Your task to perform on an android device: toggle pop-ups in chrome Image 0: 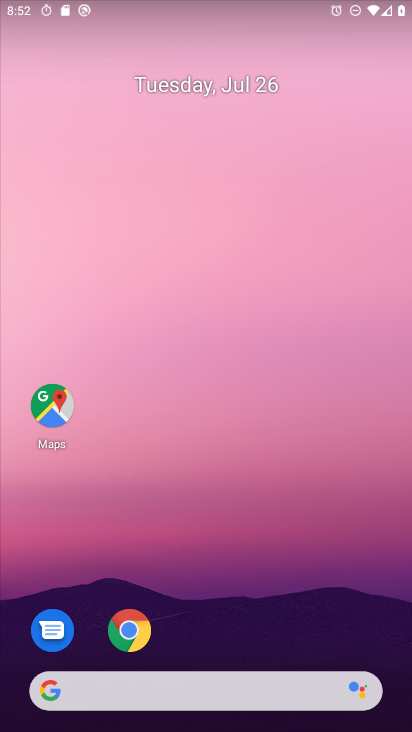
Step 0: drag from (269, 608) to (217, 170)
Your task to perform on an android device: toggle pop-ups in chrome Image 1: 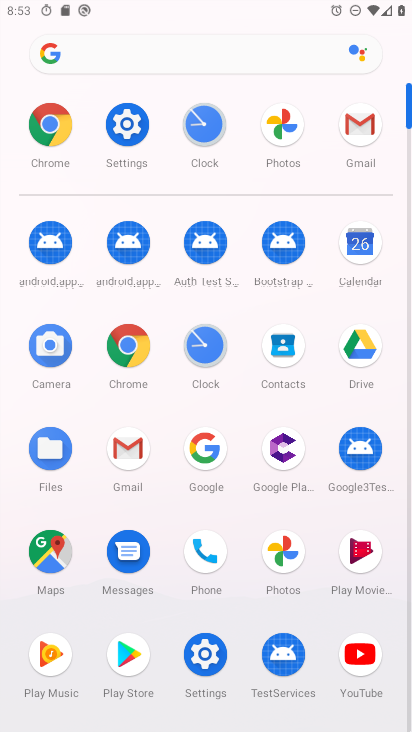
Step 1: click (136, 358)
Your task to perform on an android device: toggle pop-ups in chrome Image 2: 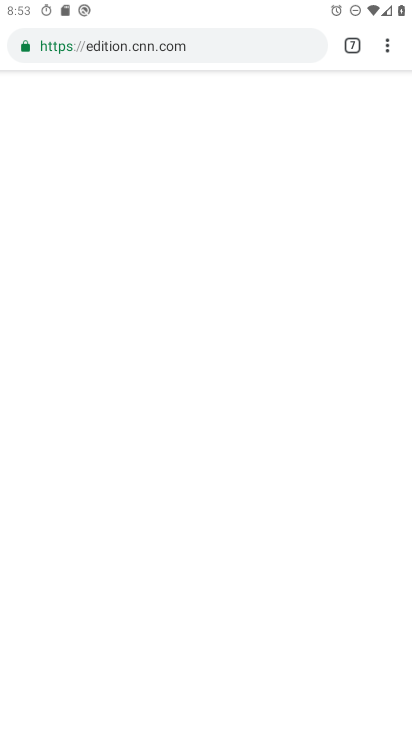
Step 2: click (388, 39)
Your task to perform on an android device: toggle pop-ups in chrome Image 3: 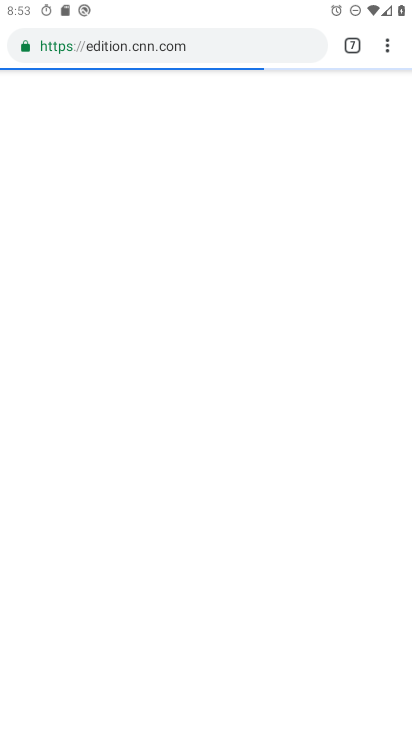
Step 3: click (387, 47)
Your task to perform on an android device: toggle pop-ups in chrome Image 4: 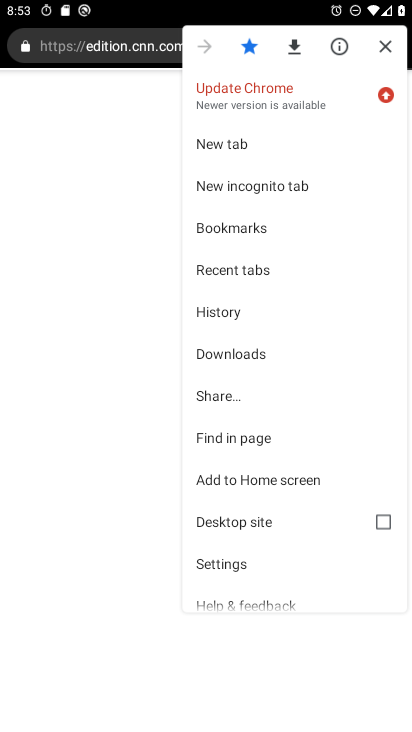
Step 4: click (249, 566)
Your task to perform on an android device: toggle pop-ups in chrome Image 5: 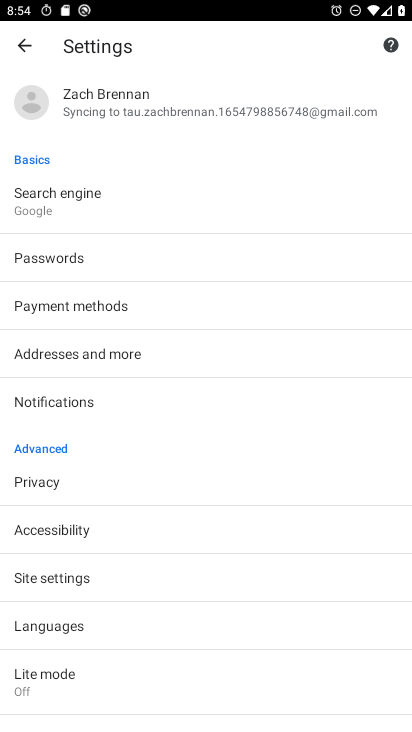
Step 5: click (105, 584)
Your task to perform on an android device: toggle pop-ups in chrome Image 6: 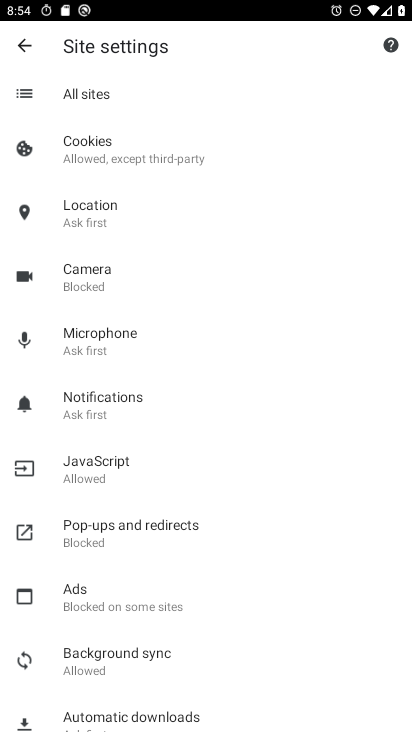
Step 6: click (193, 519)
Your task to perform on an android device: toggle pop-ups in chrome Image 7: 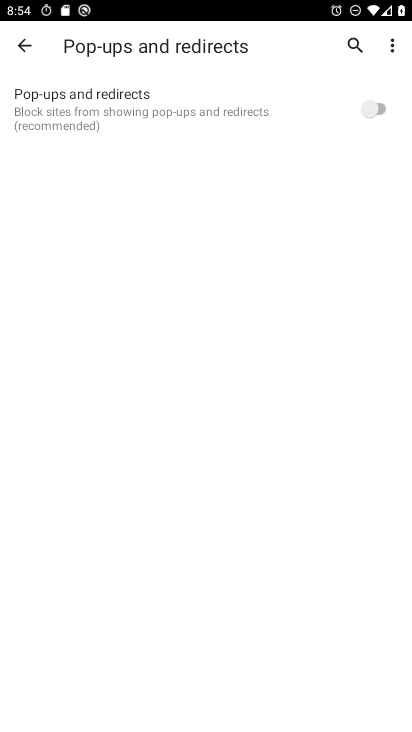
Step 7: click (385, 104)
Your task to perform on an android device: toggle pop-ups in chrome Image 8: 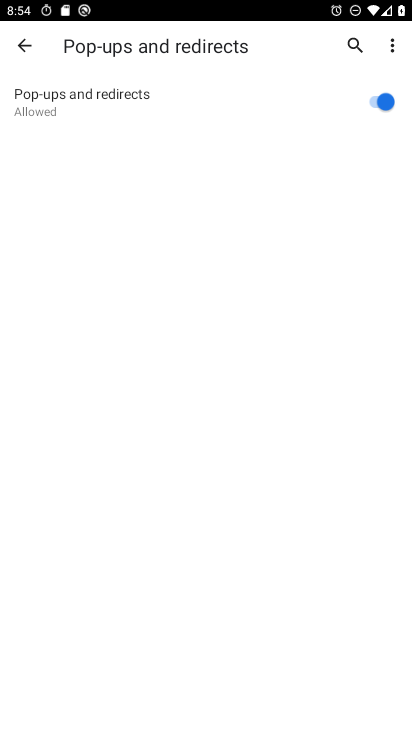
Step 8: click (384, 105)
Your task to perform on an android device: toggle pop-ups in chrome Image 9: 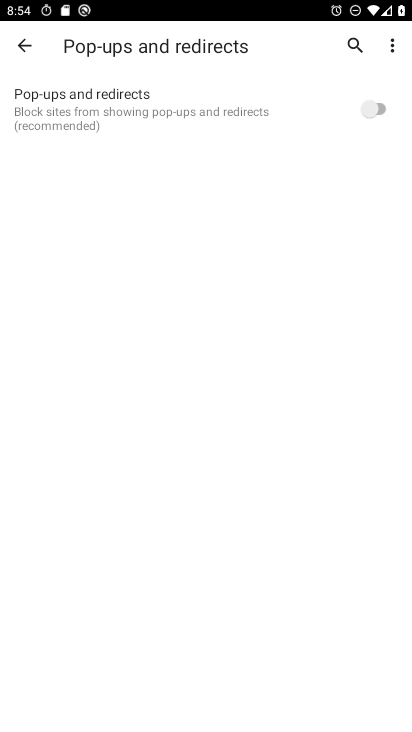
Step 9: click (389, 114)
Your task to perform on an android device: toggle pop-ups in chrome Image 10: 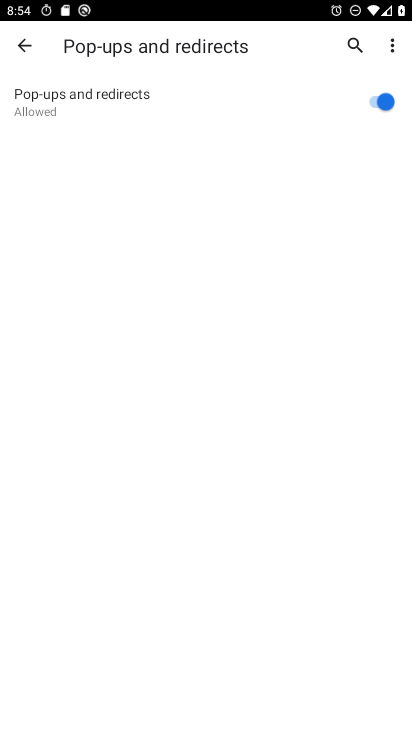
Step 10: task complete